Your task to perform on an android device: Go to Google Image 0: 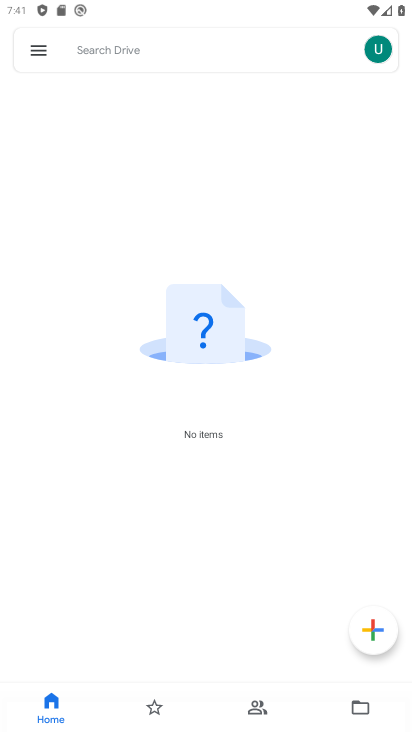
Step 0: press home button
Your task to perform on an android device: Go to Google Image 1: 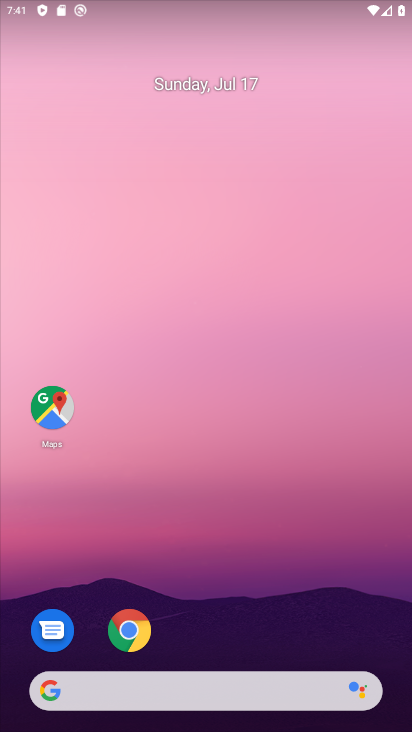
Step 1: drag from (237, 726) to (304, 97)
Your task to perform on an android device: Go to Google Image 2: 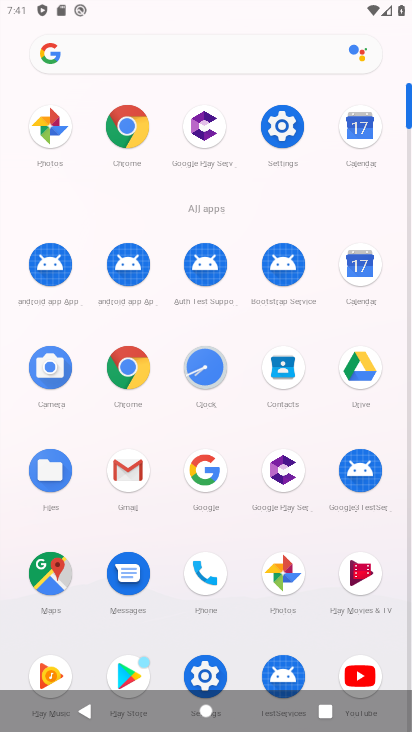
Step 2: click (215, 467)
Your task to perform on an android device: Go to Google Image 3: 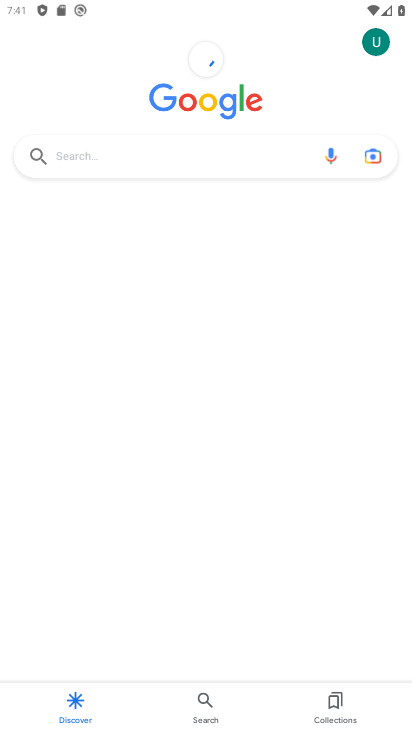
Step 3: task complete